Your task to perform on an android device: Go to network settings Image 0: 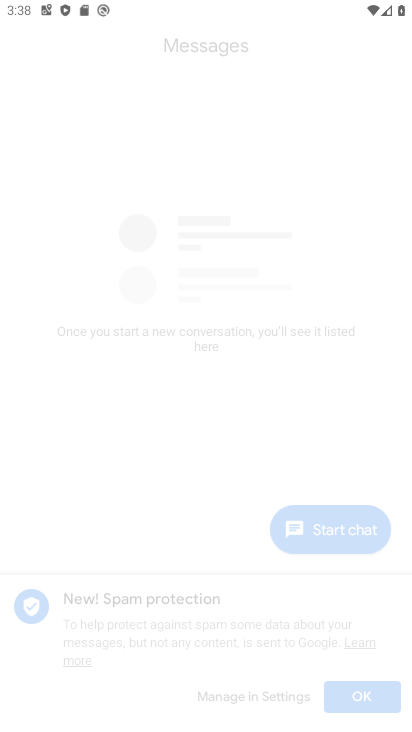
Step 0: press back button
Your task to perform on an android device: Go to network settings Image 1: 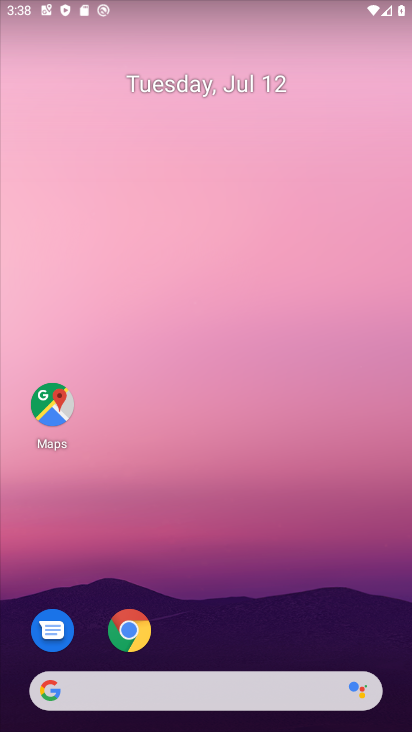
Step 1: drag from (279, 695) to (233, 244)
Your task to perform on an android device: Go to network settings Image 2: 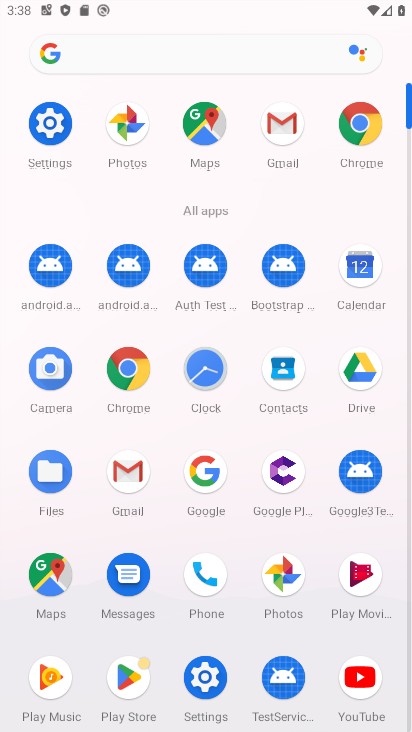
Step 2: click (206, 661)
Your task to perform on an android device: Go to network settings Image 3: 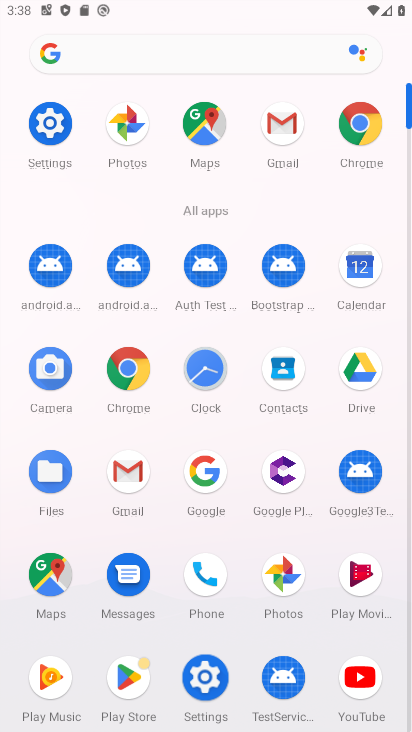
Step 3: click (208, 663)
Your task to perform on an android device: Go to network settings Image 4: 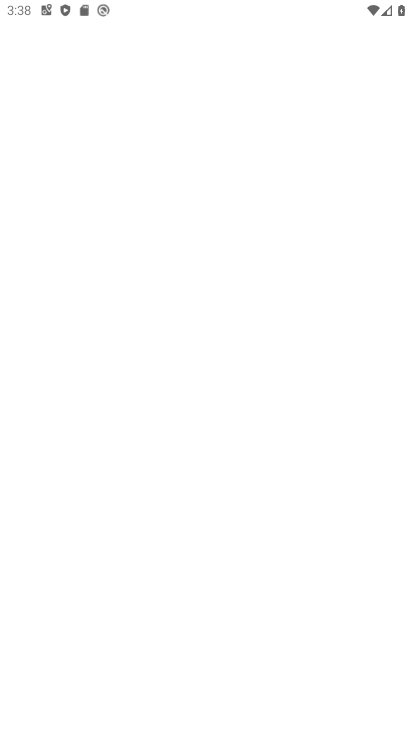
Step 4: click (209, 666)
Your task to perform on an android device: Go to network settings Image 5: 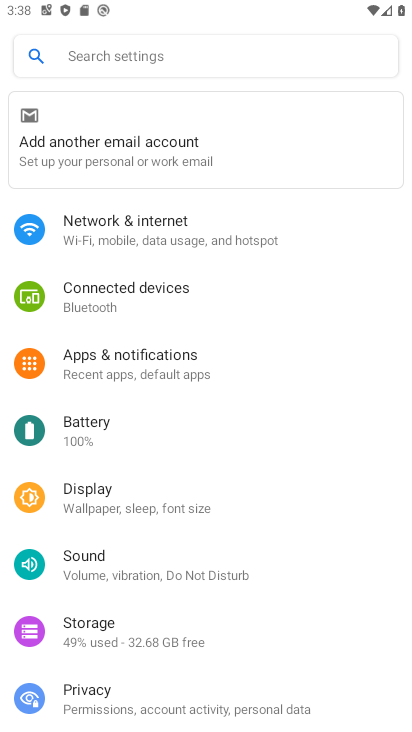
Step 5: drag from (168, 484) to (143, 126)
Your task to perform on an android device: Go to network settings Image 6: 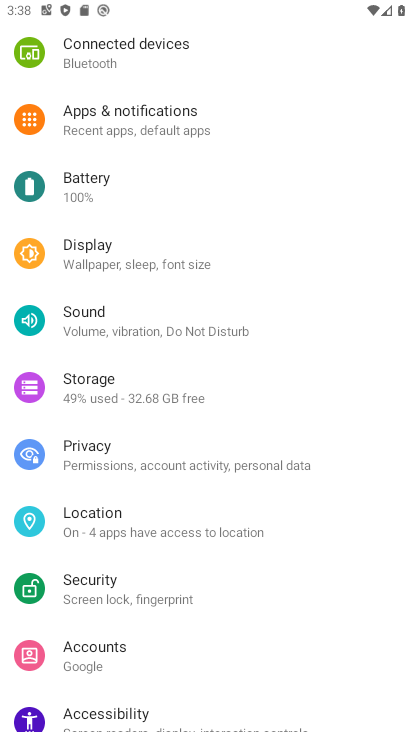
Step 6: drag from (123, 163) to (175, 548)
Your task to perform on an android device: Go to network settings Image 7: 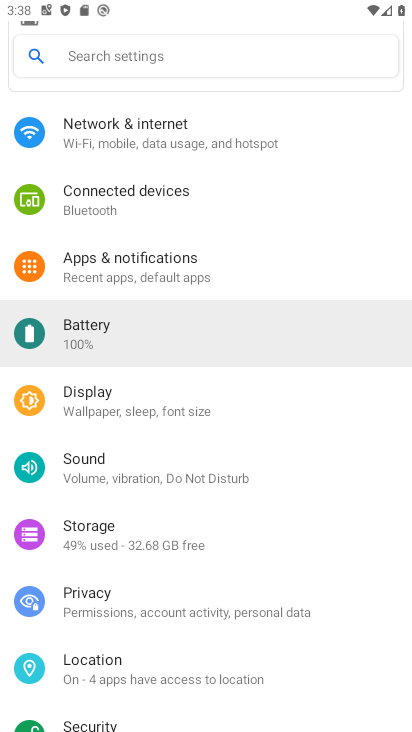
Step 7: drag from (180, 220) to (200, 574)
Your task to perform on an android device: Go to network settings Image 8: 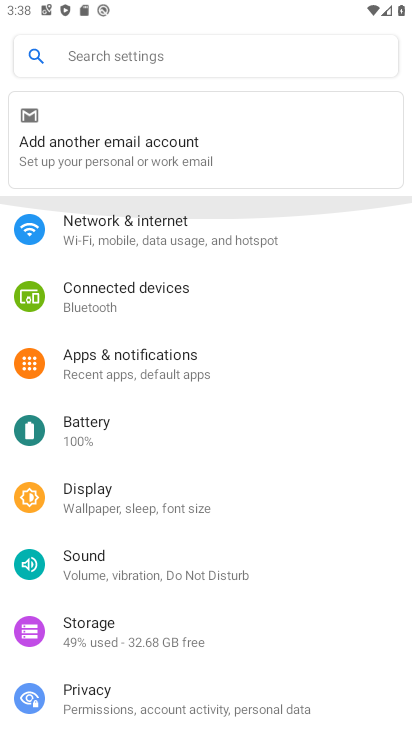
Step 8: drag from (178, 294) to (244, 580)
Your task to perform on an android device: Go to network settings Image 9: 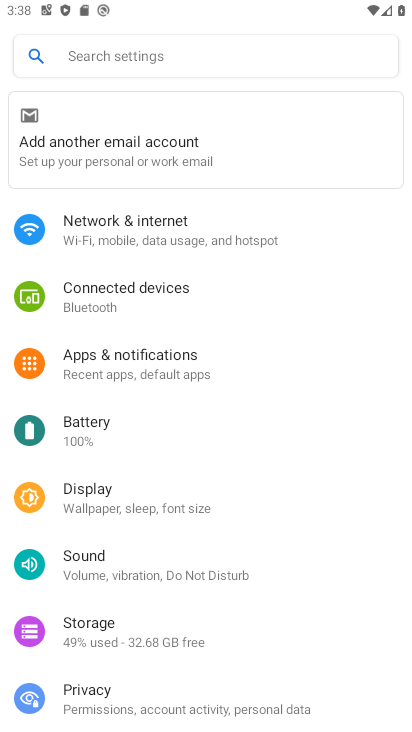
Step 9: click (177, 230)
Your task to perform on an android device: Go to network settings Image 10: 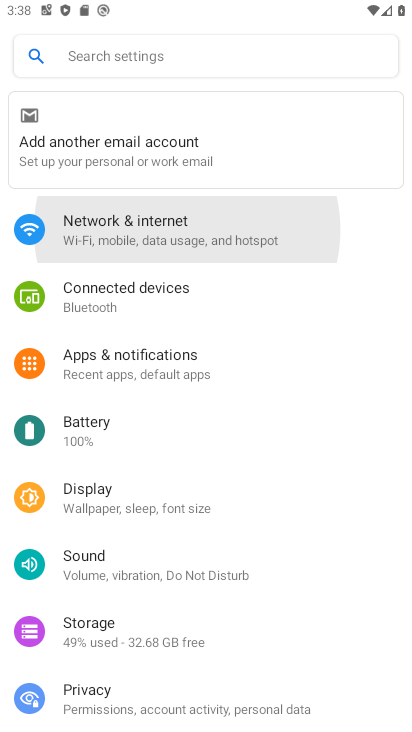
Step 10: click (174, 226)
Your task to perform on an android device: Go to network settings Image 11: 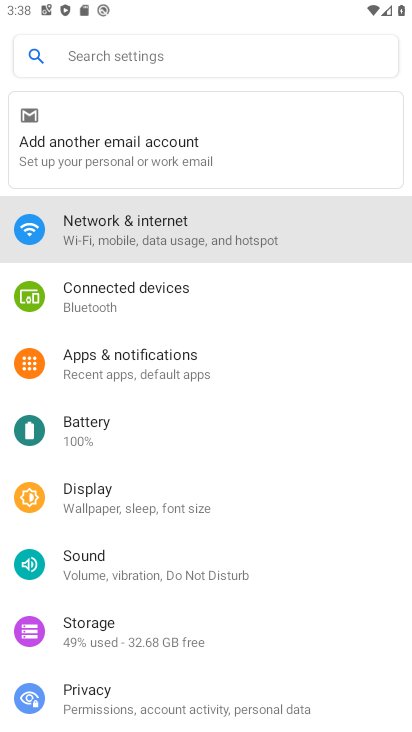
Step 11: click (174, 226)
Your task to perform on an android device: Go to network settings Image 12: 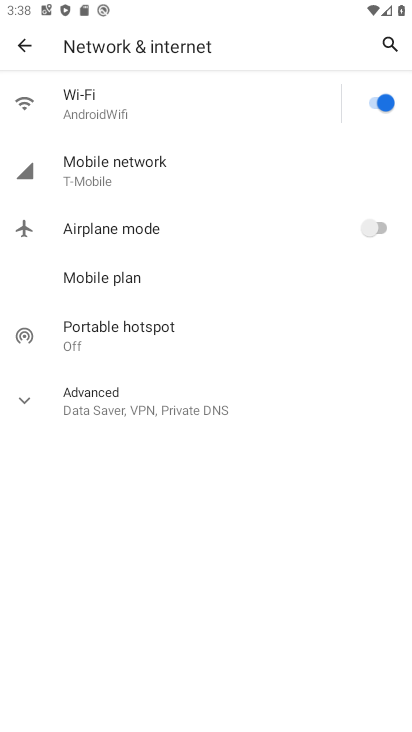
Step 12: task complete